Your task to perform on an android device: Turn on the flashlight Image 0: 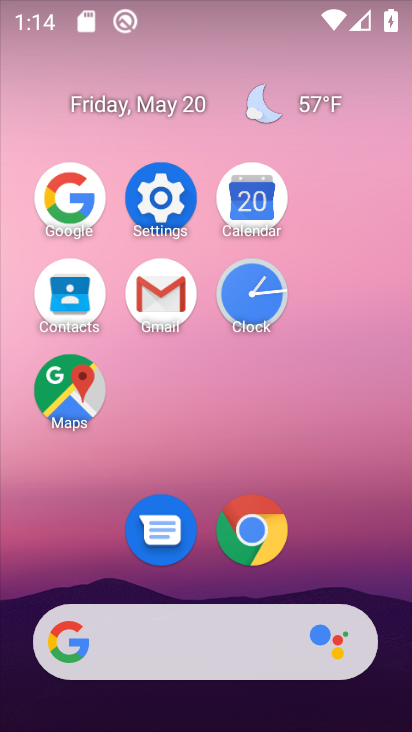
Step 0: drag from (281, 0) to (273, 442)
Your task to perform on an android device: Turn on the flashlight Image 1: 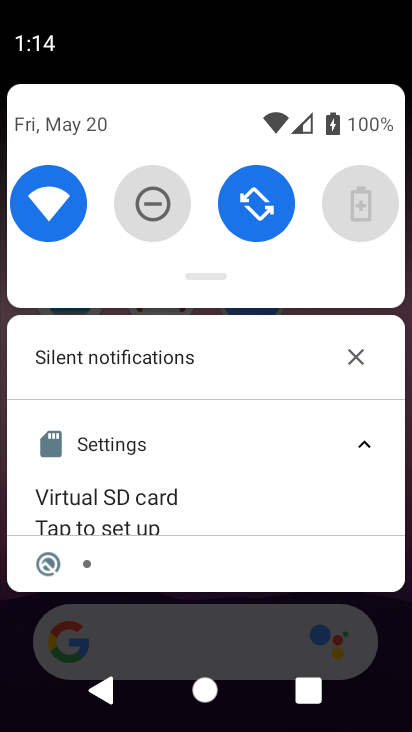
Step 1: task complete